Your task to perform on an android device: turn pop-ups on in chrome Image 0: 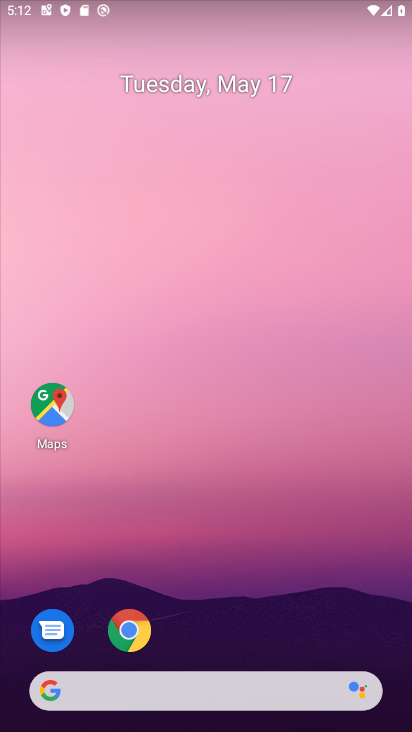
Step 0: click (127, 632)
Your task to perform on an android device: turn pop-ups on in chrome Image 1: 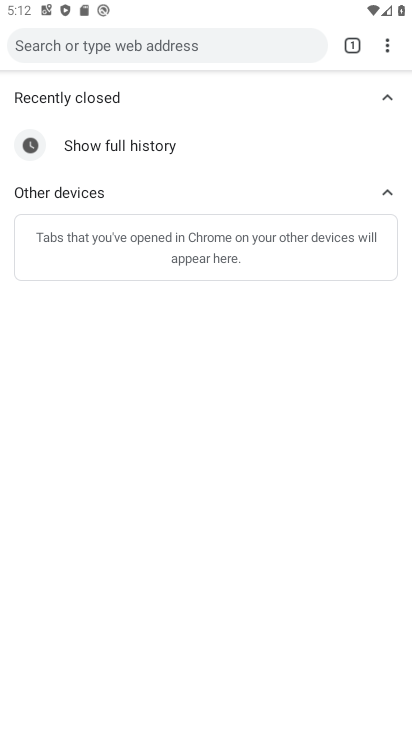
Step 1: drag from (382, 44) to (234, 388)
Your task to perform on an android device: turn pop-ups on in chrome Image 2: 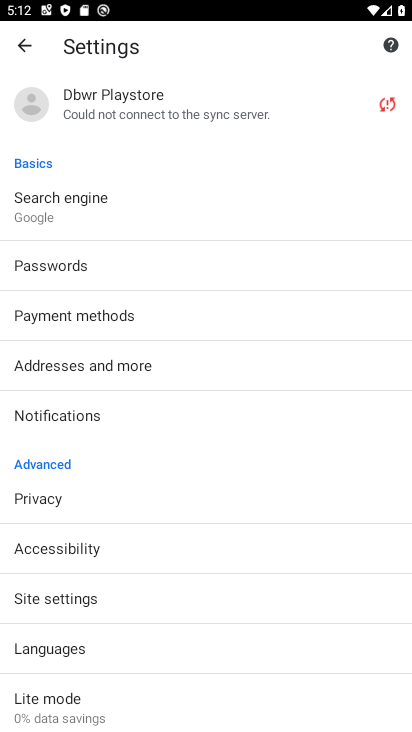
Step 2: drag from (139, 624) to (209, 409)
Your task to perform on an android device: turn pop-ups on in chrome Image 3: 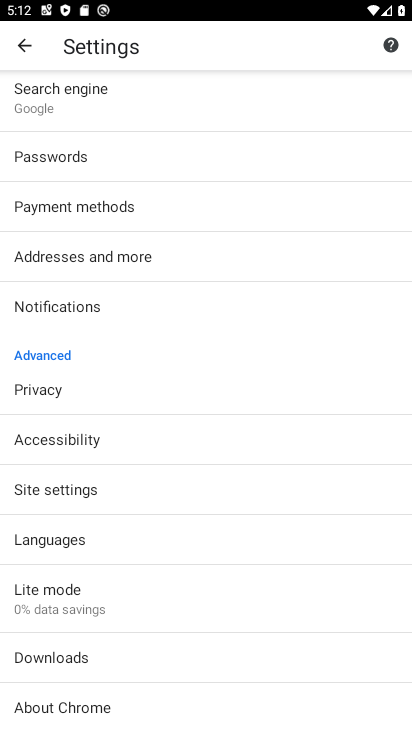
Step 3: click (56, 484)
Your task to perform on an android device: turn pop-ups on in chrome Image 4: 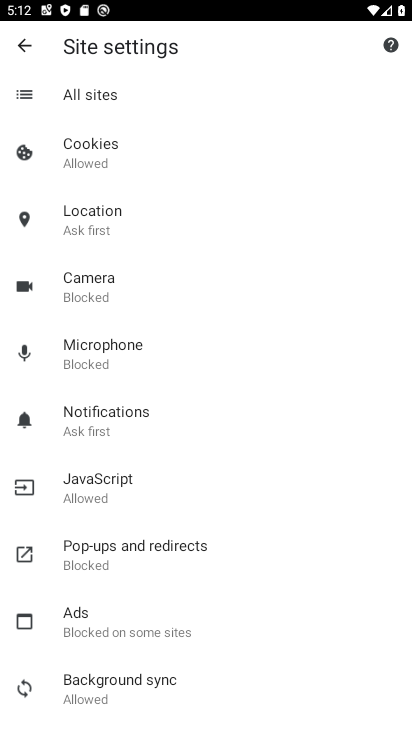
Step 4: drag from (147, 465) to (250, 206)
Your task to perform on an android device: turn pop-ups on in chrome Image 5: 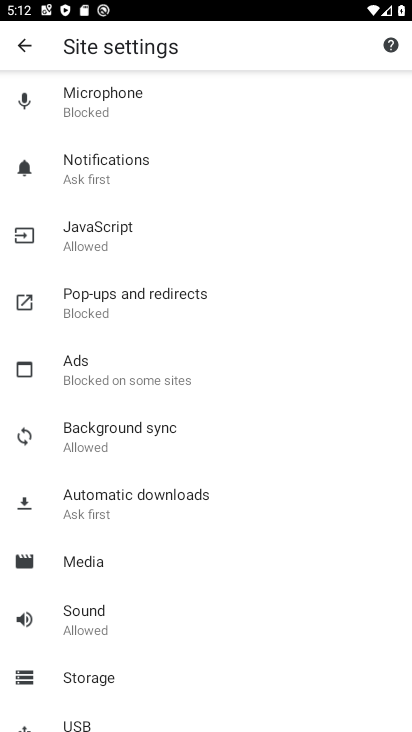
Step 5: click (197, 596)
Your task to perform on an android device: turn pop-ups on in chrome Image 6: 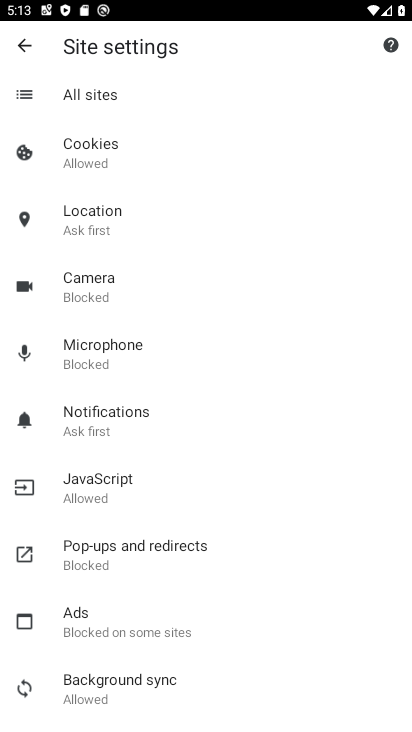
Step 6: click (145, 552)
Your task to perform on an android device: turn pop-ups on in chrome Image 7: 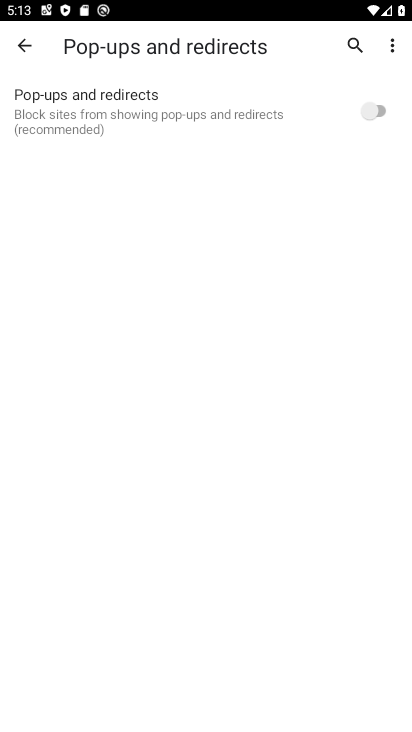
Step 7: click (383, 106)
Your task to perform on an android device: turn pop-ups on in chrome Image 8: 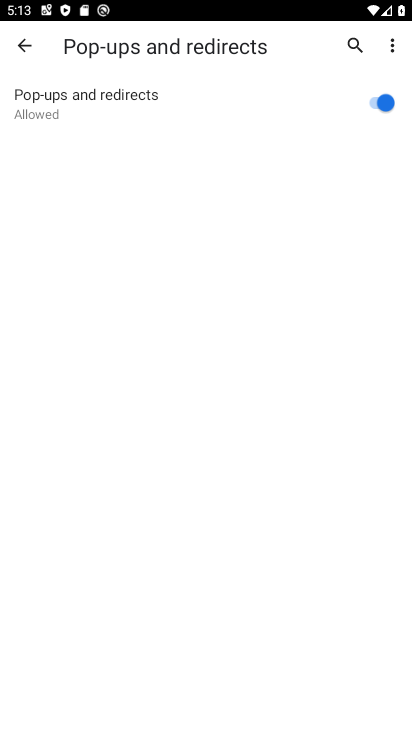
Step 8: task complete